Your task to perform on an android device: turn off airplane mode Image 0: 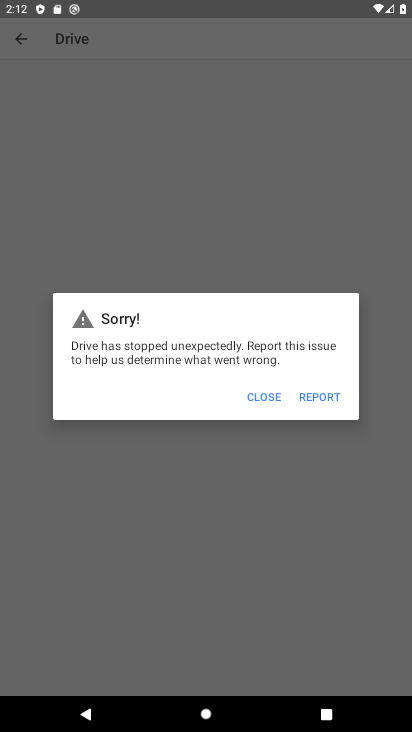
Step 0: press home button
Your task to perform on an android device: turn off airplane mode Image 1: 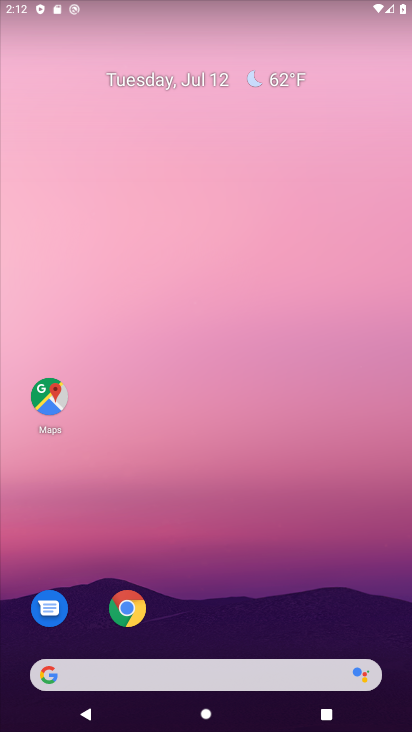
Step 1: drag from (202, 669) to (324, 149)
Your task to perform on an android device: turn off airplane mode Image 2: 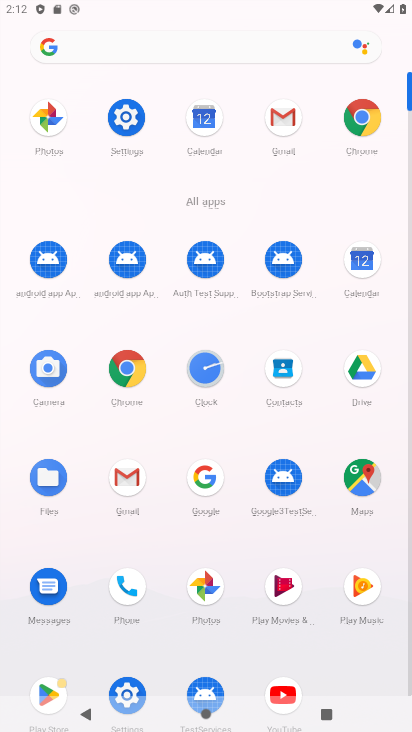
Step 2: click (130, 109)
Your task to perform on an android device: turn off airplane mode Image 3: 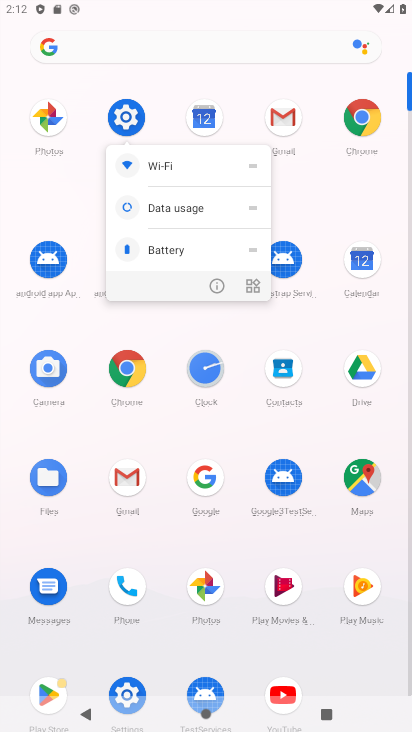
Step 3: click (125, 116)
Your task to perform on an android device: turn off airplane mode Image 4: 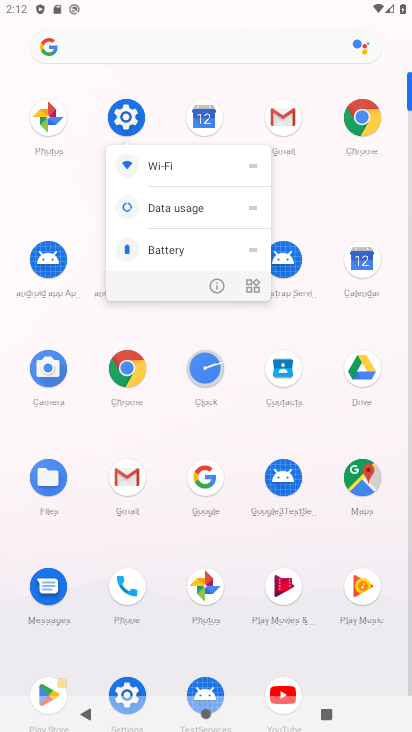
Step 4: click (131, 116)
Your task to perform on an android device: turn off airplane mode Image 5: 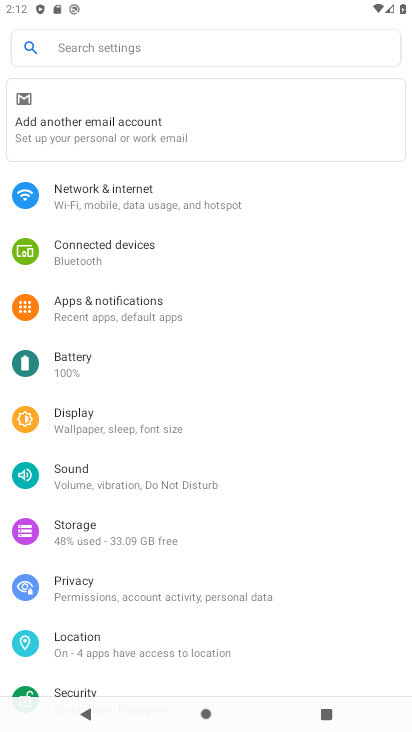
Step 5: click (151, 194)
Your task to perform on an android device: turn off airplane mode Image 6: 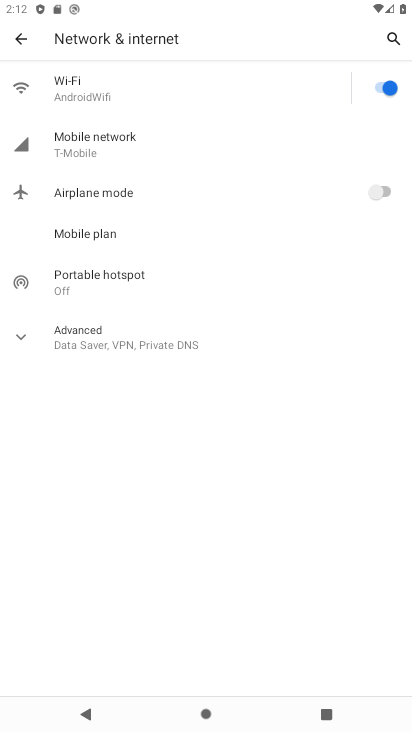
Step 6: task complete